Your task to perform on an android device: change the clock display to analog Image 0: 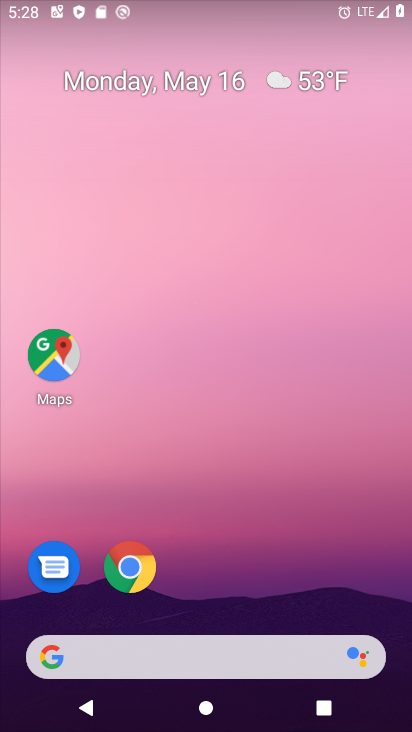
Step 0: drag from (269, 643) to (281, 2)
Your task to perform on an android device: change the clock display to analog Image 1: 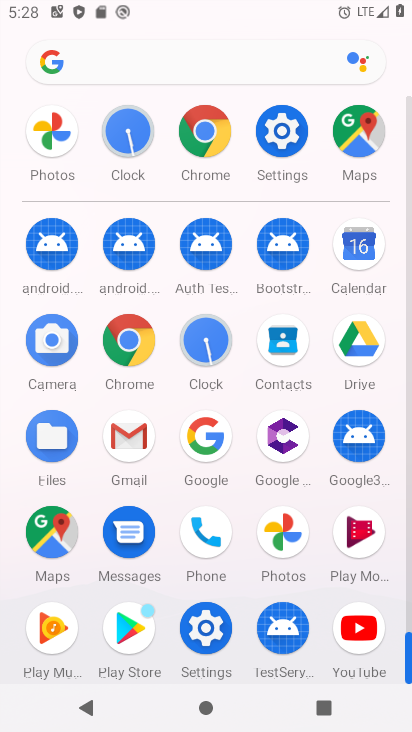
Step 1: click (195, 350)
Your task to perform on an android device: change the clock display to analog Image 2: 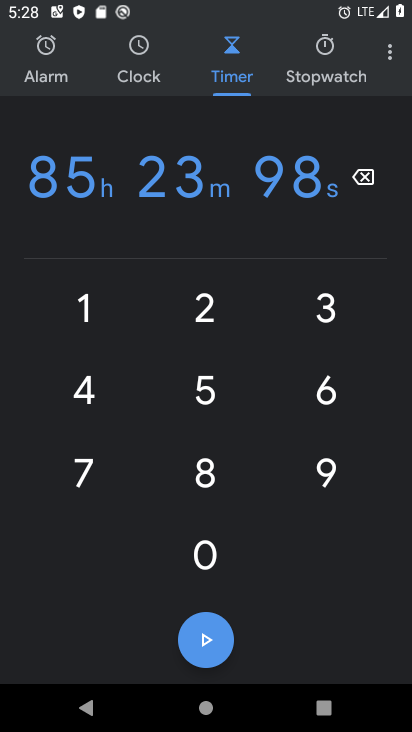
Step 2: click (393, 50)
Your task to perform on an android device: change the clock display to analog Image 3: 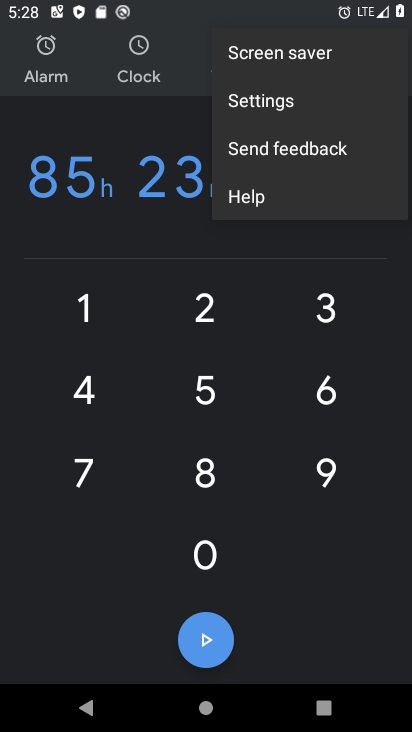
Step 3: click (244, 109)
Your task to perform on an android device: change the clock display to analog Image 4: 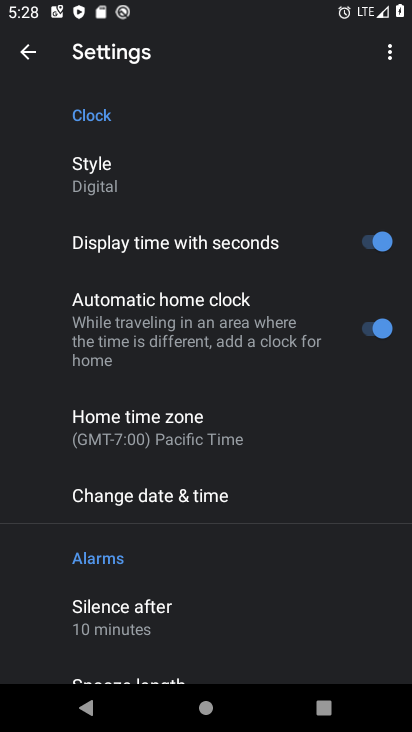
Step 4: click (172, 185)
Your task to perform on an android device: change the clock display to analog Image 5: 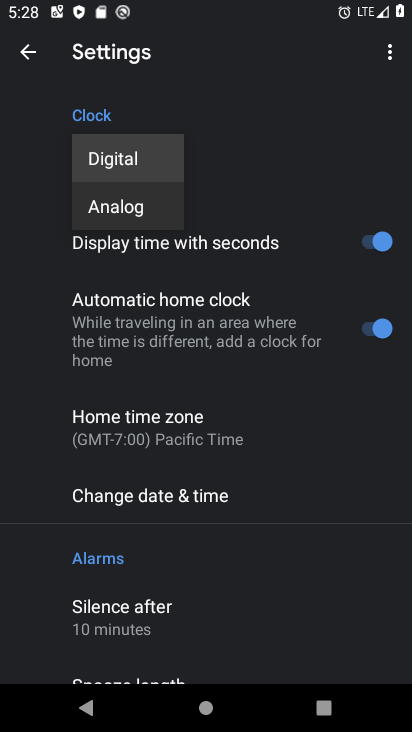
Step 5: click (167, 201)
Your task to perform on an android device: change the clock display to analog Image 6: 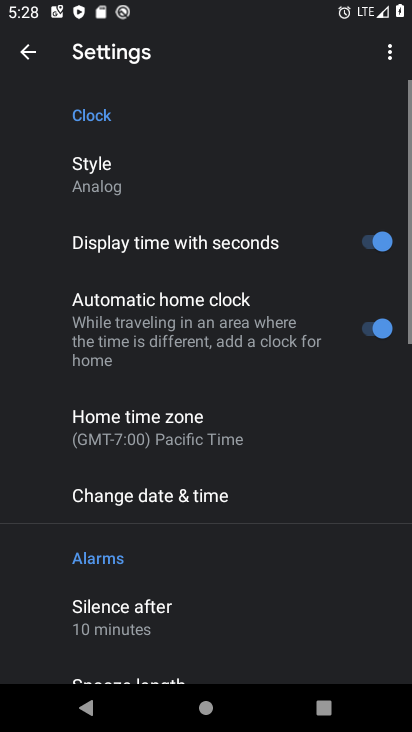
Step 6: task complete